Your task to perform on an android device: remove spam from my inbox in the gmail app Image 0: 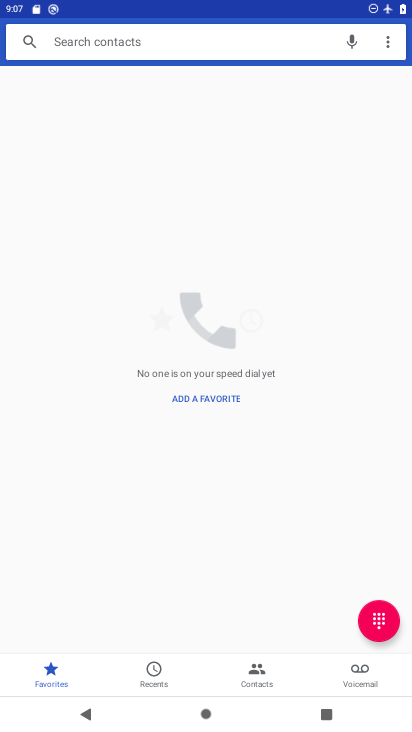
Step 0: press home button
Your task to perform on an android device: remove spam from my inbox in the gmail app Image 1: 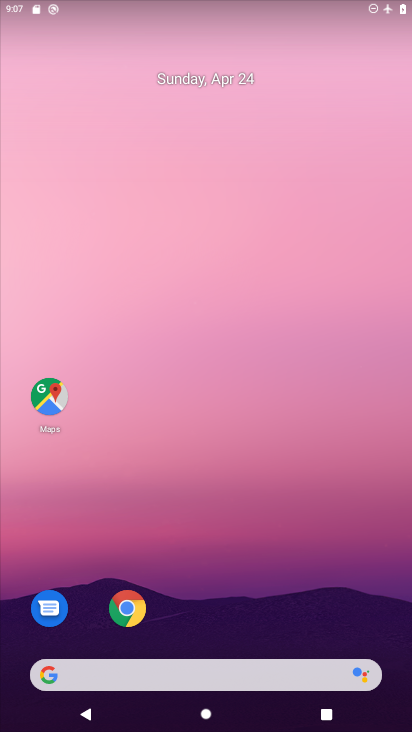
Step 1: drag from (223, 602) to (223, 130)
Your task to perform on an android device: remove spam from my inbox in the gmail app Image 2: 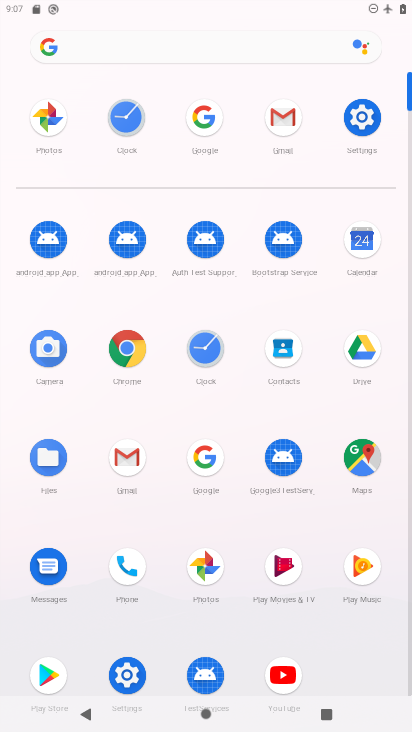
Step 2: click (274, 129)
Your task to perform on an android device: remove spam from my inbox in the gmail app Image 3: 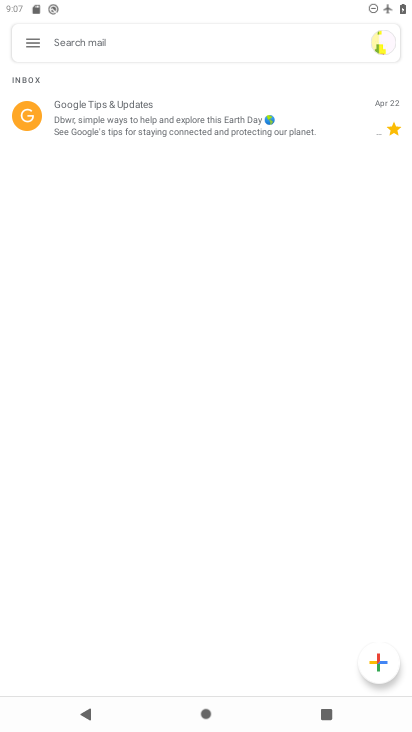
Step 3: click (37, 43)
Your task to perform on an android device: remove spam from my inbox in the gmail app Image 4: 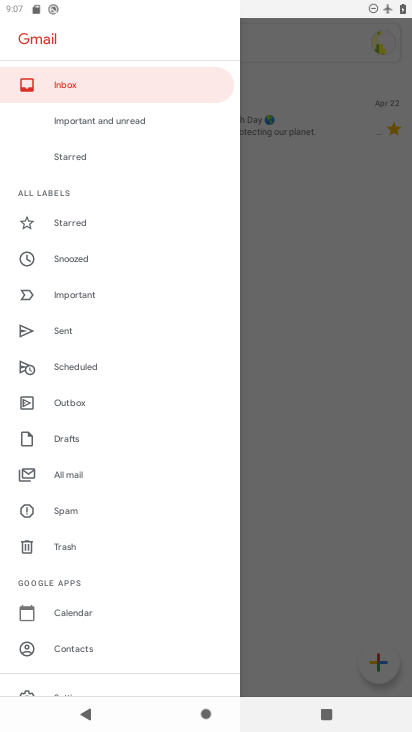
Step 4: click (70, 506)
Your task to perform on an android device: remove spam from my inbox in the gmail app Image 5: 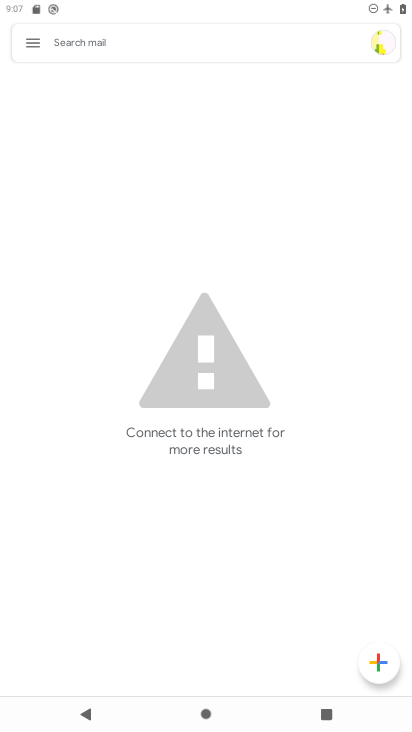
Step 5: task complete